Your task to perform on an android device: Show me the alarms in the clock app Image 0: 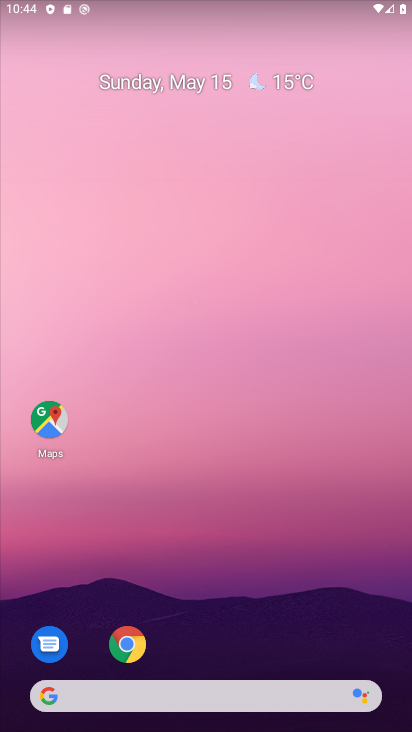
Step 0: drag from (274, 405) to (182, 12)
Your task to perform on an android device: Show me the alarms in the clock app Image 1: 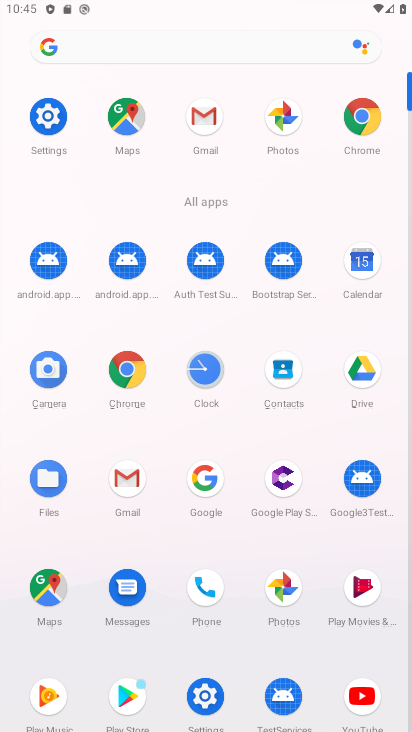
Step 1: click (205, 372)
Your task to perform on an android device: Show me the alarms in the clock app Image 2: 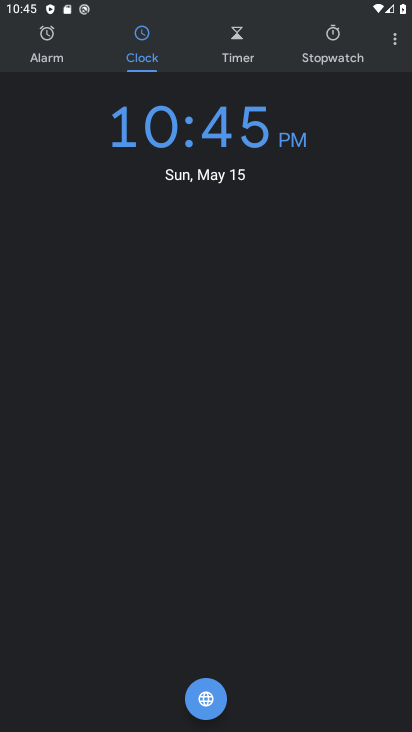
Step 2: click (56, 45)
Your task to perform on an android device: Show me the alarms in the clock app Image 3: 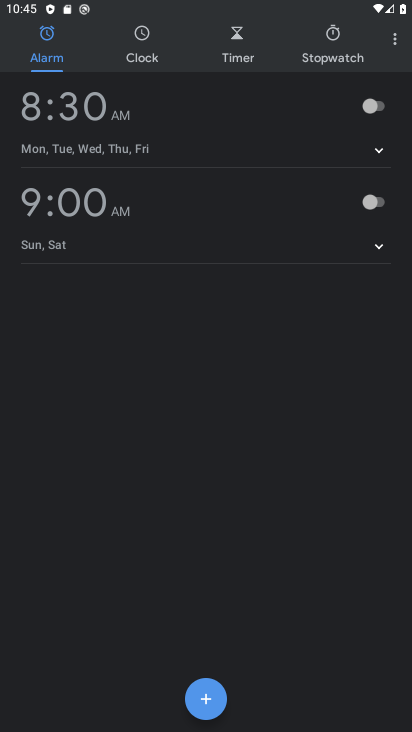
Step 3: task complete